Your task to perform on an android device: Open the calendar and show me this week's events Image 0: 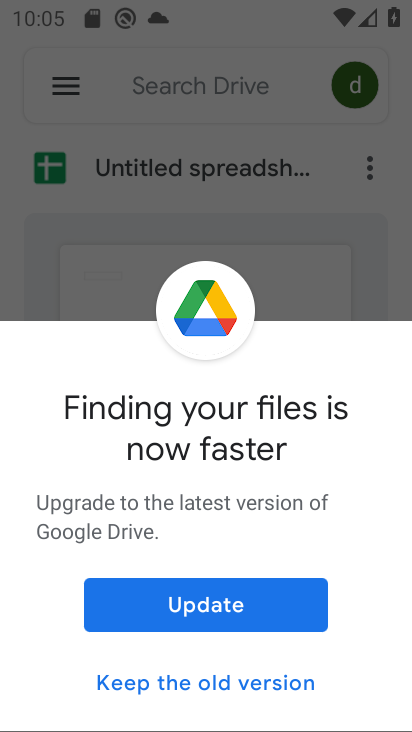
Step 0: press home button
Your task to perform on an android device: Open the calendar and show me this week's events Image 1: 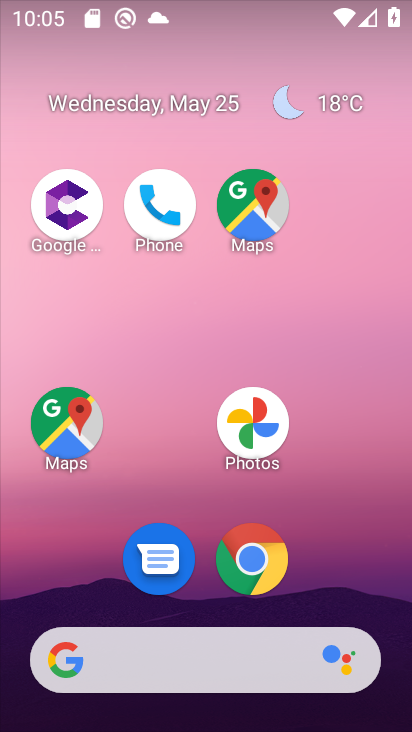
Step 1: click (177, 96)
Your task to perform on an android device: Open the calendar and show me this week's events Image 2: 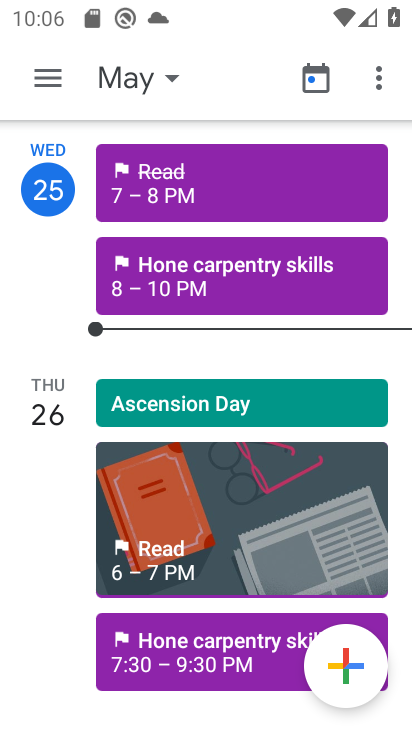
Step 2: click (56, 80)
Your task to perform on an android device: Open the calendar and show me this week's events Image 3: 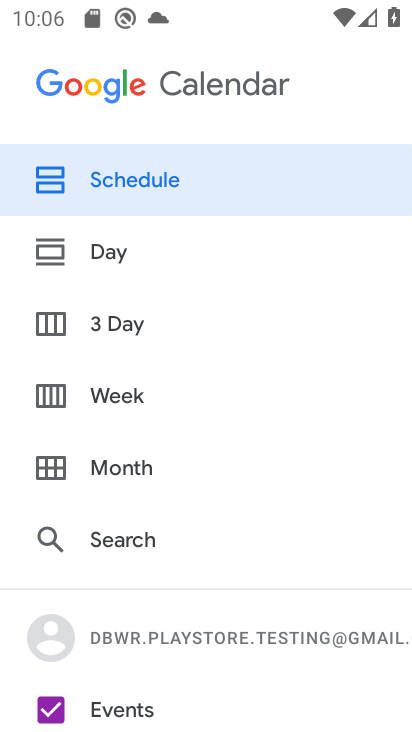
Step 3: click (124, 391)
Your task to perform on an android device: Open the calendar and show me this week's events Image 4: 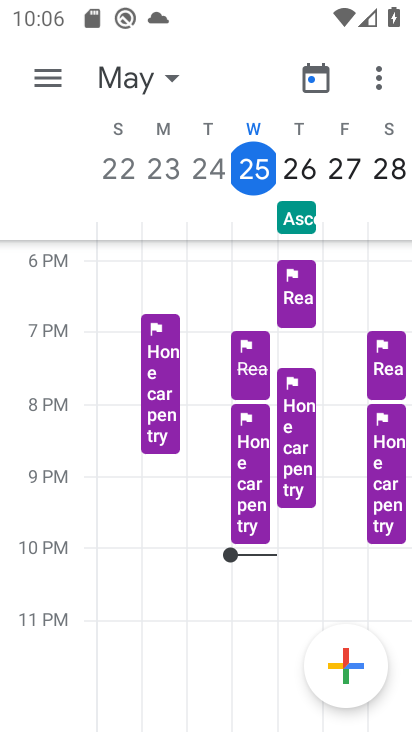
Step 4: click (53, 72)
Your task to perform on an android device: Open the calendar and show me this week's events Image 5: 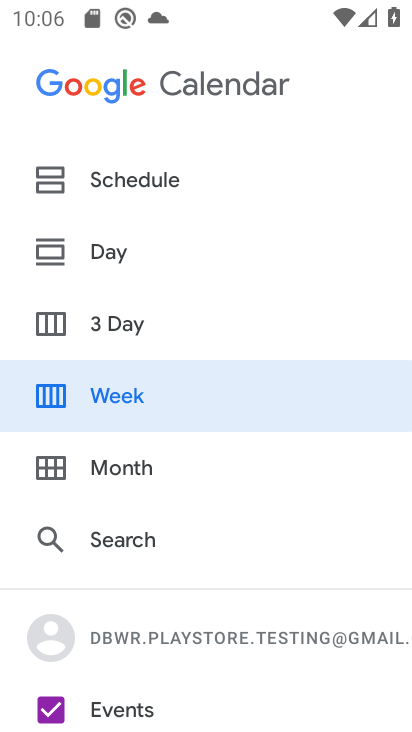
Step 5: drag from (187, 674) to (227, 255)
Your task to perform on an android device: Open the calendar and show me this week's events Image 6: 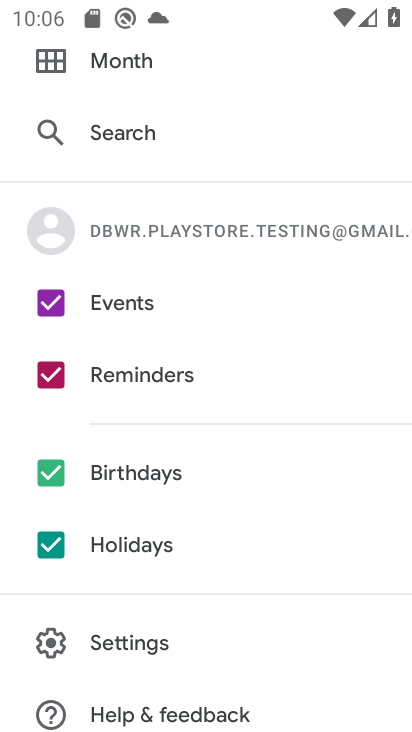
Step 6: click (63, 548)
Your task to perform on an android device: Open the calendar and show me this week's events Image 7: 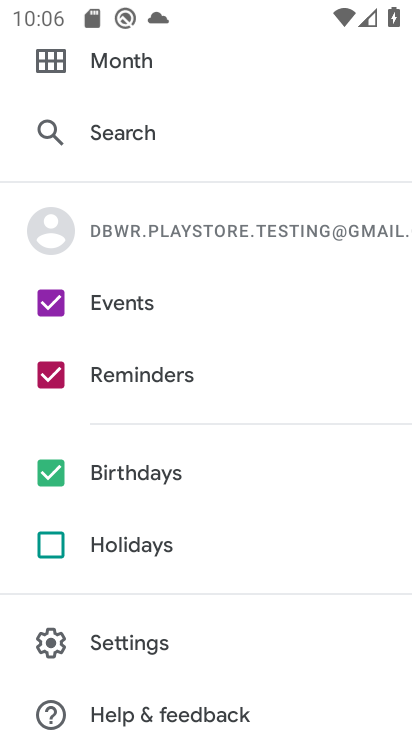
Step 7: click (58, 484)
Your task to perform on an android device: Open the calendar and show me this week's events Image 8: 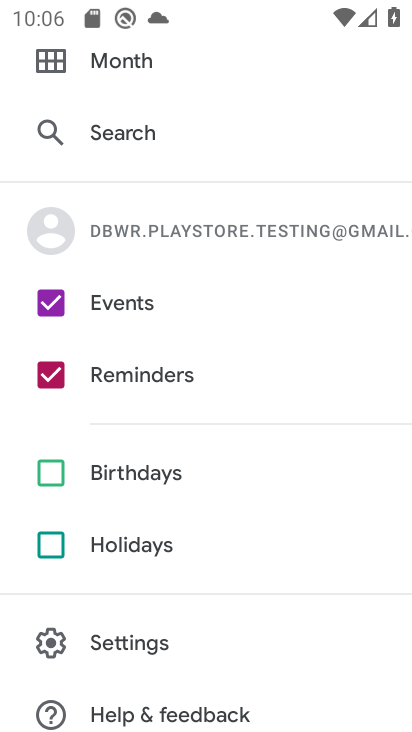
Step 8: click (52, 374)
Your task to perform on an android device: Open the calendar and show me this week's events Image 9: 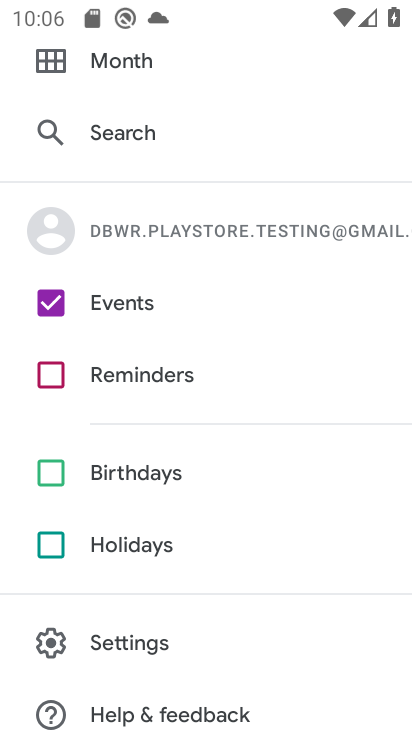
Step 9: task complete